Your task to perform on an android device: turn pop-ups on in chrome Image 0: 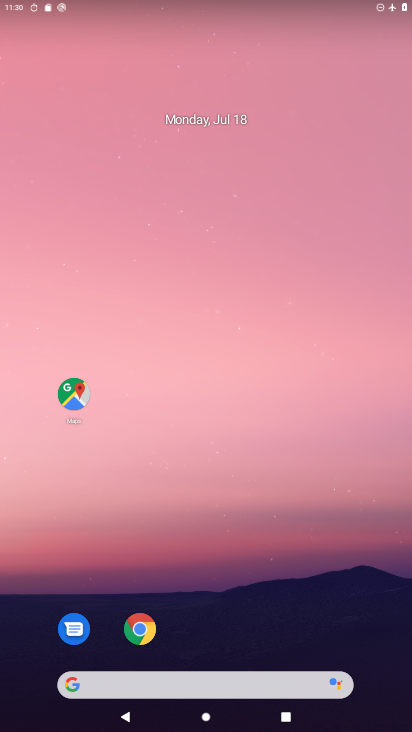
Step 0: drag from (344, 599) to (273, 90)
Your task to perform on an android device: turn pop-ups on in chrome Image 1: 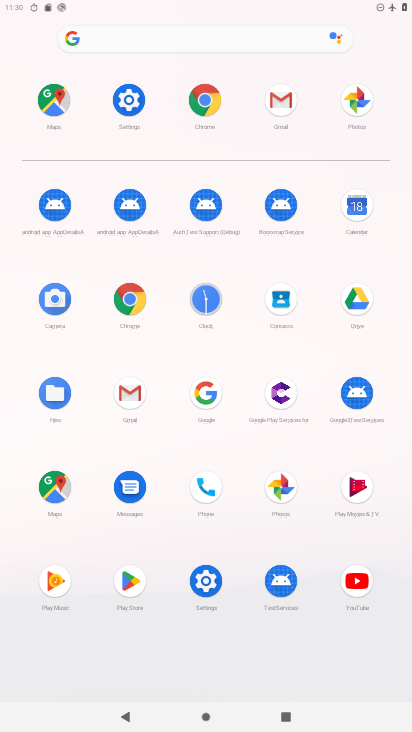
Step 1: click (202, 100)
Your task to perform on an android device: turn pop-ups on in chrome Image 2: 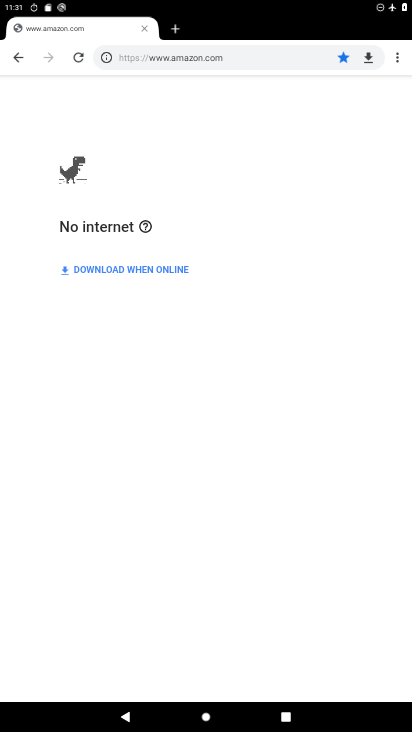
Step 2: drag from (394, 56) to (283, 386)
Your task to perform on an android device: turn pop-ups on in chrome Image 3: 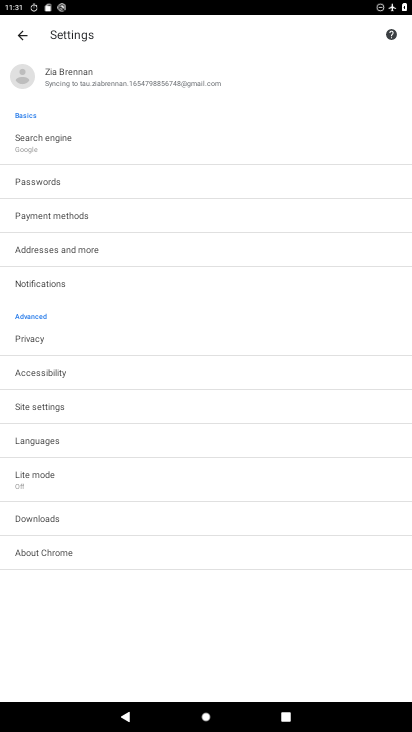
Step 3: click (55, 405)
Your task to perform on an android device: turn pop-ups on in chrome Image 4: 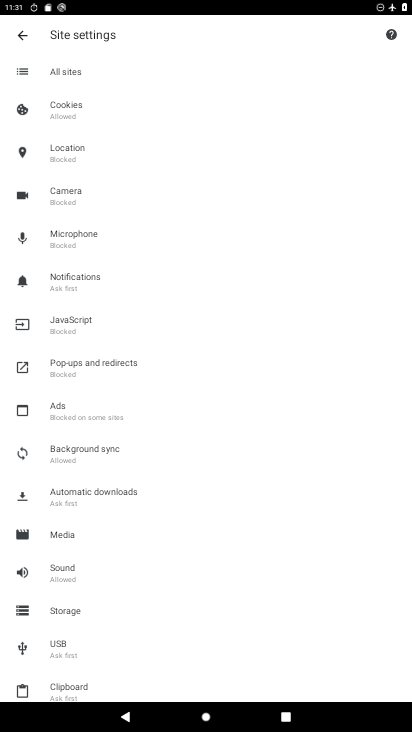
Step 4: click (88, 367)
Your task to perform on an android device: turn pop-ups on in chrome Image 5: 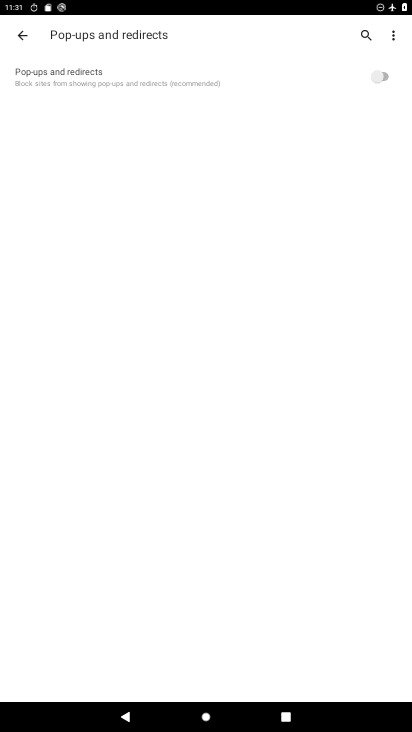
Step 5: click (389, 78)
Your task to perform on an android device: turn pop-ups on in chrome Image 6: 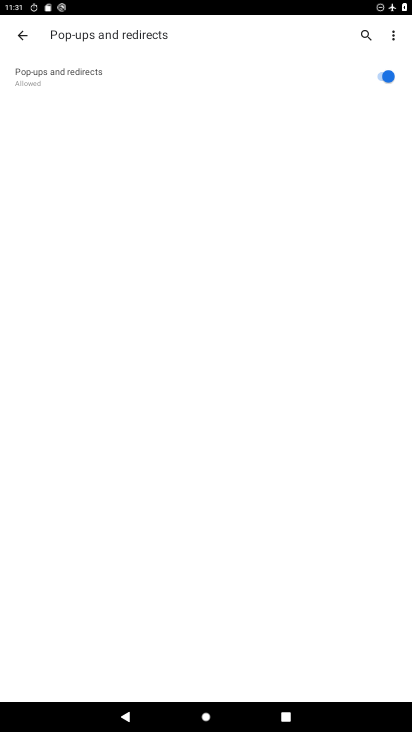
Step 6: task complete